Your task to perform on an android device: toggle location history Image 0: 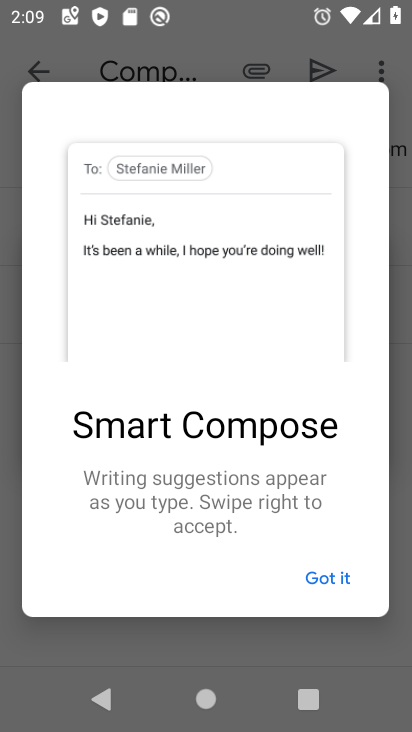
Step 0: press home button
Your task to perform on an android device: toggle location history Image 1: 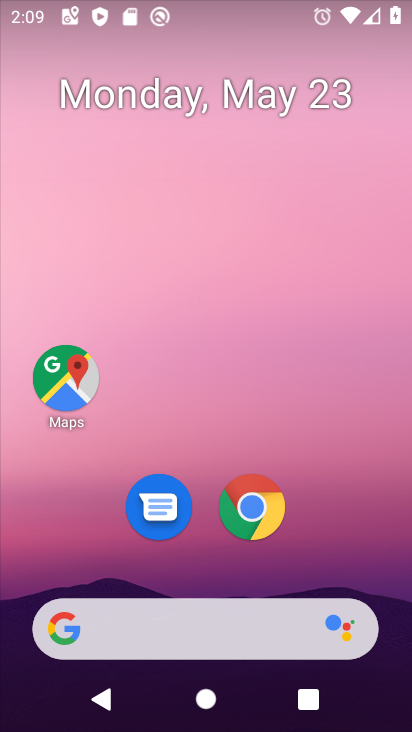
Step 1: drag from (231, 719) to (220, 264)
Your task to perform on an android device: toggle location history Image 2: 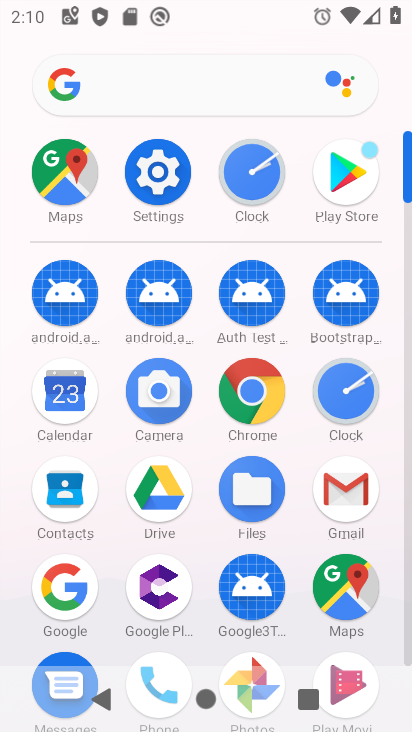
Step 2: click (158, 166)
Your task to perform on an android device: toggle location history Image 3: 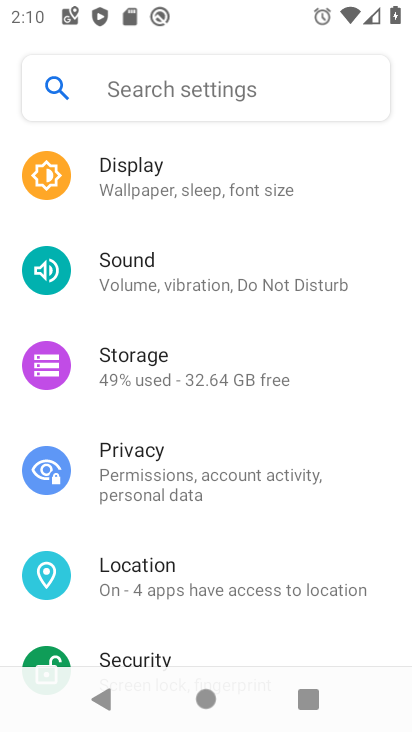
Step 3: click (150, 576)
Your task to perform on an android device: toggle location history Image 4: 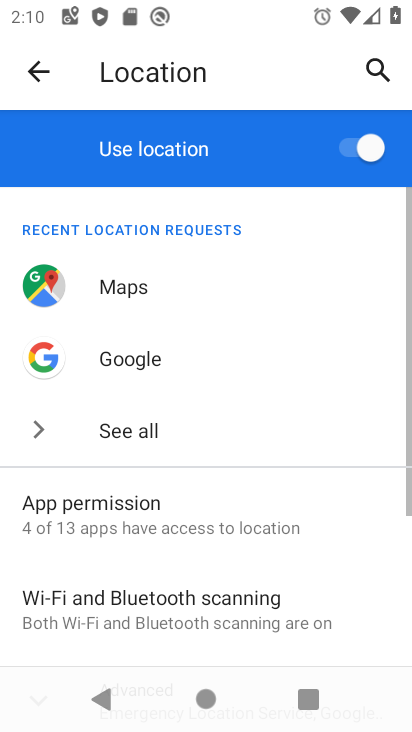
Step 4: drag from (129, 583) to (123, 290)
Your task to perform on an android device: toggle location history Image 5: 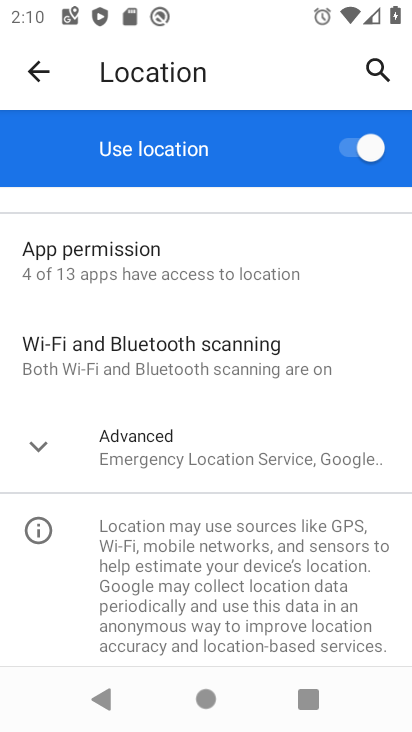
Step 5: click (146, 438)
Your task to perform on an android device: toggle location history Image 6: 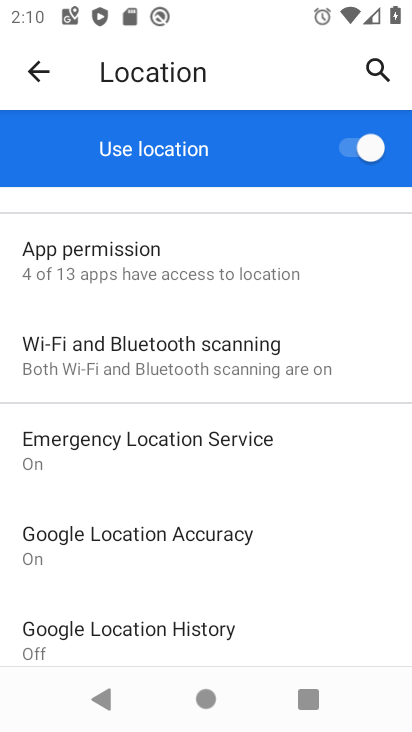
Step 6: click (133, 629)
Your task to perform on an android device: toggle location history Image 7: 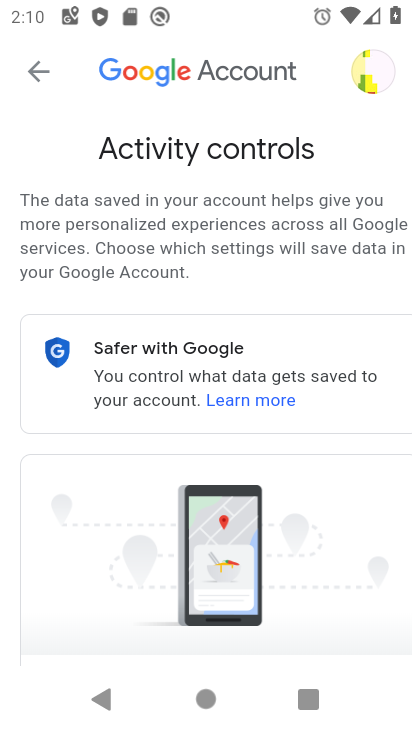
Step 7: drag from (247, 645) to (240, 208)
Your task to perform on an android device: toggle location history Image 8: 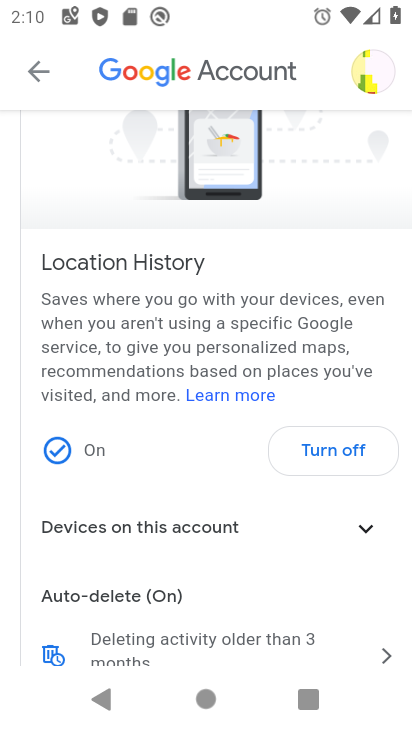
Step 8: click (345, 448)
Your task to perform on an android device: toggle location history Image 9: 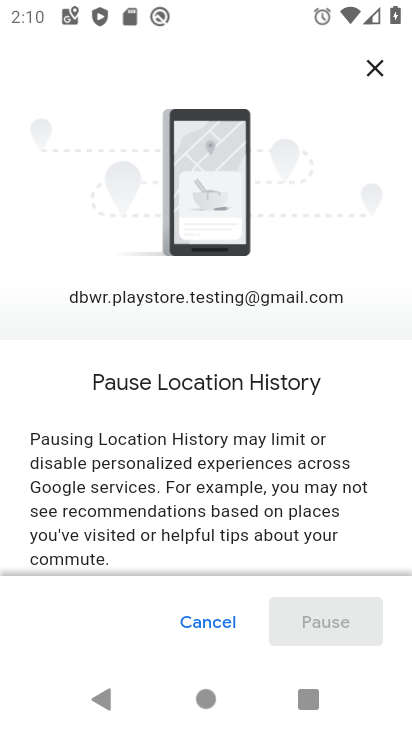
Step 9: drag from (306, 548) to (301, 205)
Your task to perform on an android device: toggle location history Image 10: 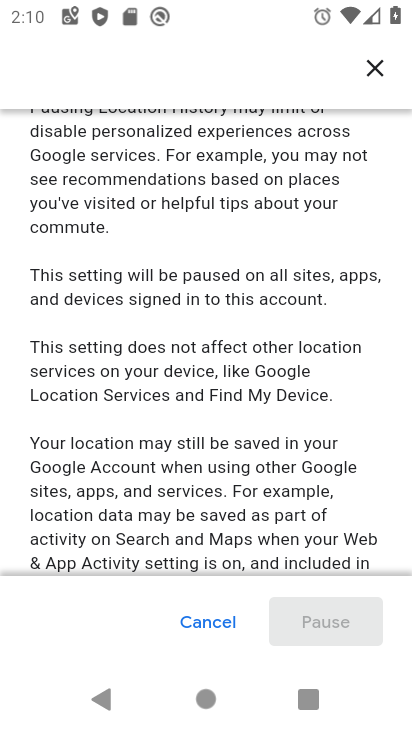
Step 10: drag from (255, 537) to (237, 197)
Your task to perform on an android device: toggle location history Image 11: 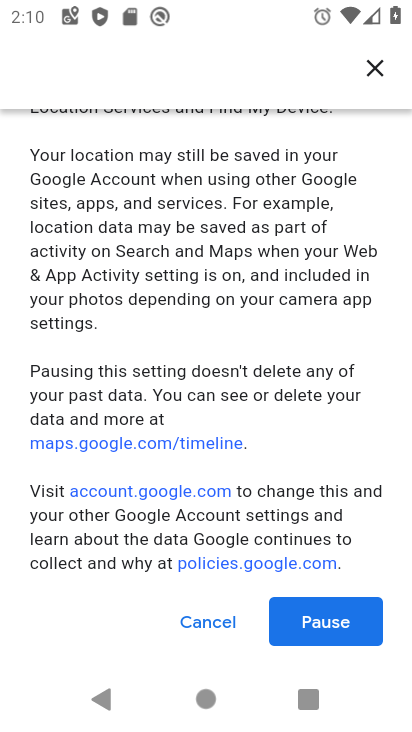
Step 11: click (313, 621)
Your task to perform on an android device: toggle location history Image 12: 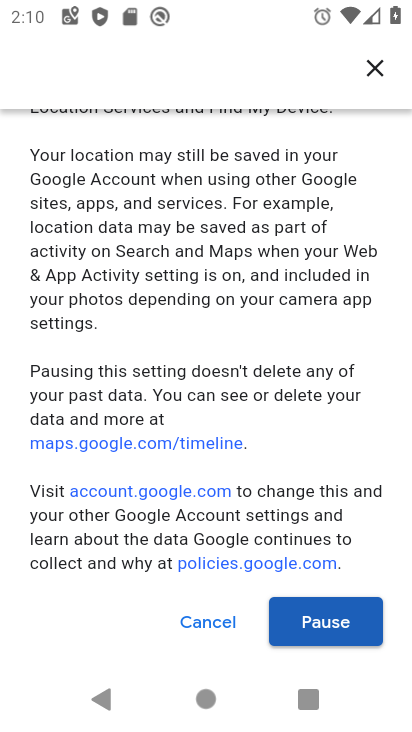
Step 12: click (324, 621)
Your task to perform on an android device: toggle location history Image 13: 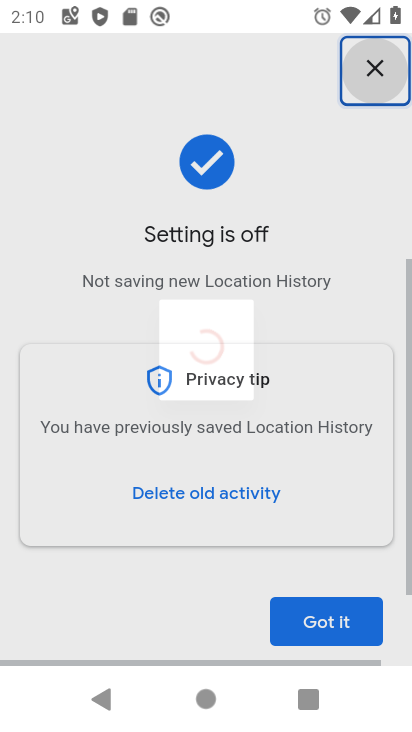
Step 13: click (333, 614)
Your task to perform on an android device: toggle location history Image 14: 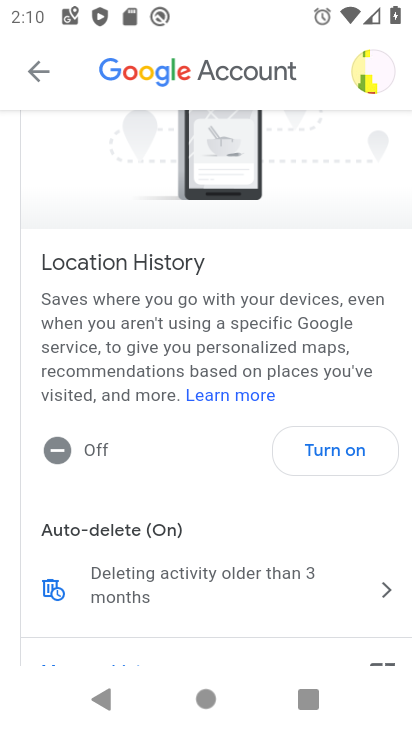
Step 14: task complete